Your task to perform on an android device: all mails in gmail Image 0: 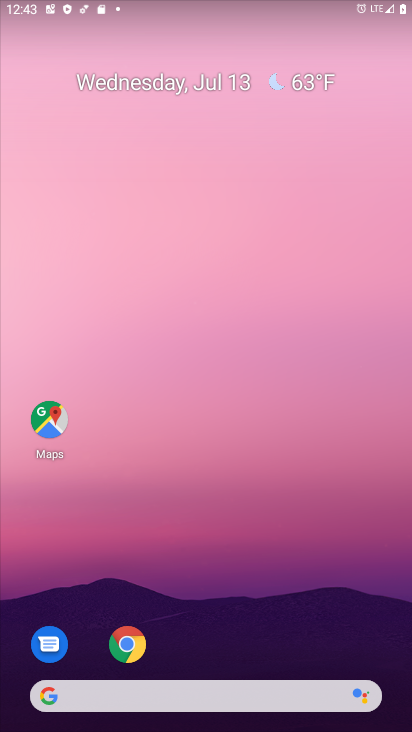
Step 0: drag from (192, 694) to (239, 369)
Your task to perform on an android device: all mails in gmail Image 1: 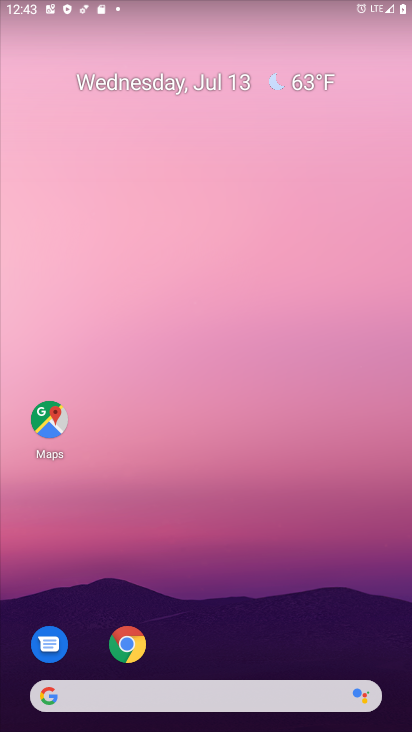
Step 1: drag from (224, 702) to (252, 260)
Your task to perform on an android device: all mails in gmail Image 2: 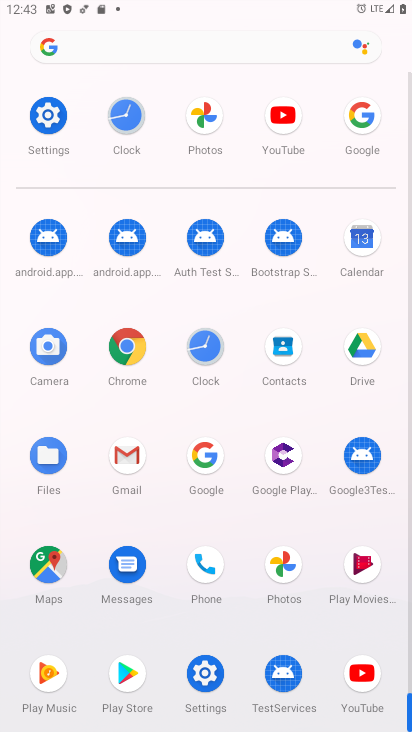
Step 2: click (128, 455)
Your task to perform on an android device: all mails in gmail Image 3: 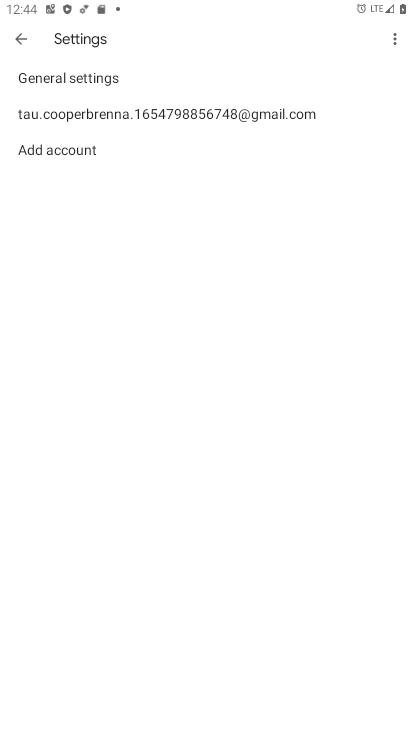
Step 3: click (220, 112)
Your task to perform on an android device: all mails in gmail Image 4: 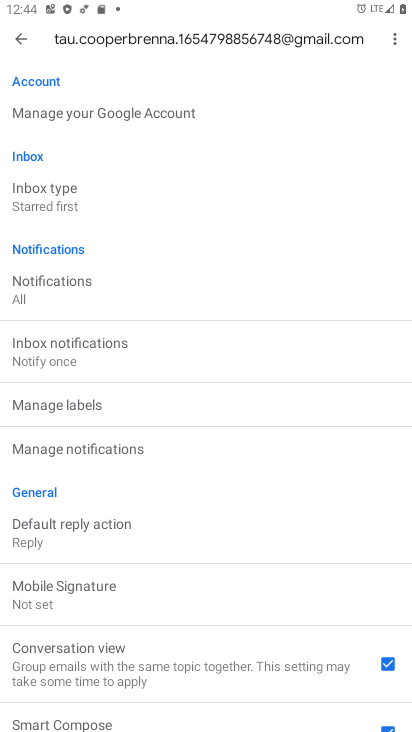
Step 4: task complete